Your task to perform on an android device: Open battery settings Image 0: 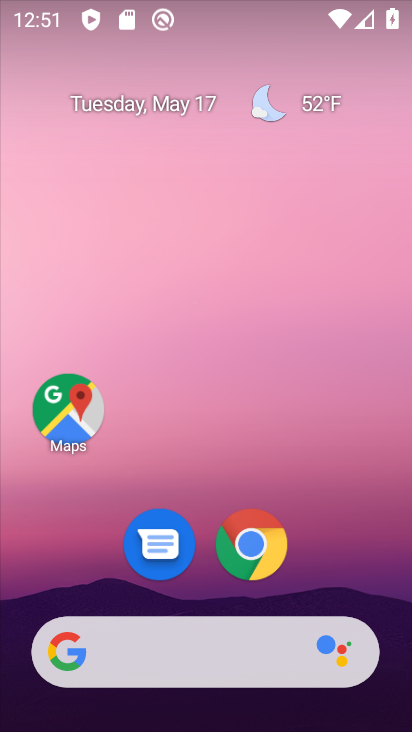
Step 0: drag from (342, 507) to (393, 92)
Your task to perform on an android device: Open battery settings Image 1: 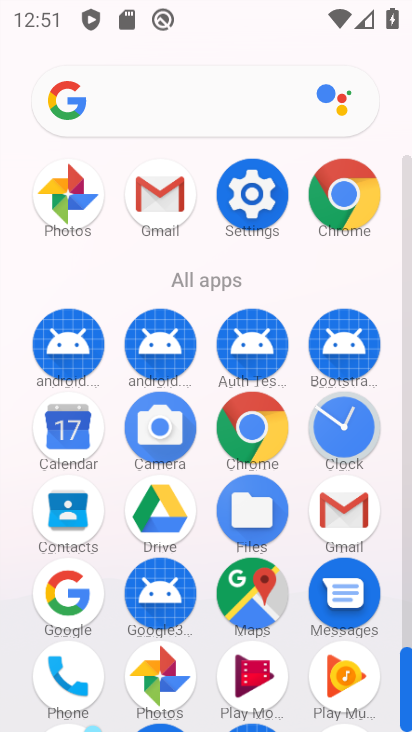
Step 1: click (264, 179)
Your task to perform on an android device: Open battery settings Image 2: 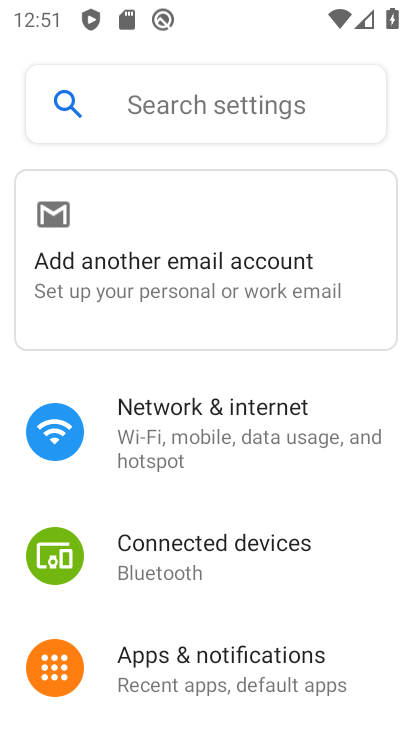
Step 2: drag from (209, 584) to (244, 338)
Your task to perform on an android device: Open battery settings Image 3: 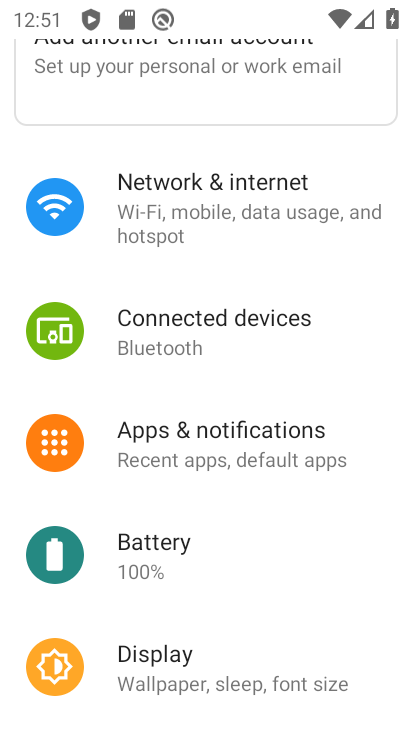
Step 3: click (218, 564)
Your task to perform on an android device: Open battery settings Image 4: 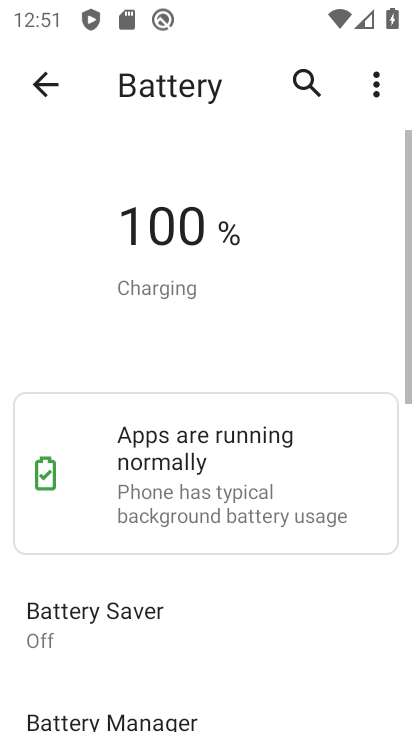
Step 4: task complete